Your task to perform on an android device: Play the last video I watched on Youtube Image 0: 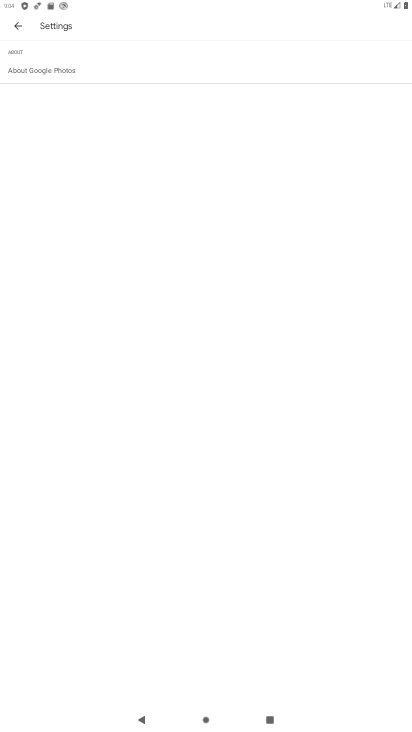
Step 0: press home button
Your task to perform on an android device: Play the last video I watched on Youtube Image 1: 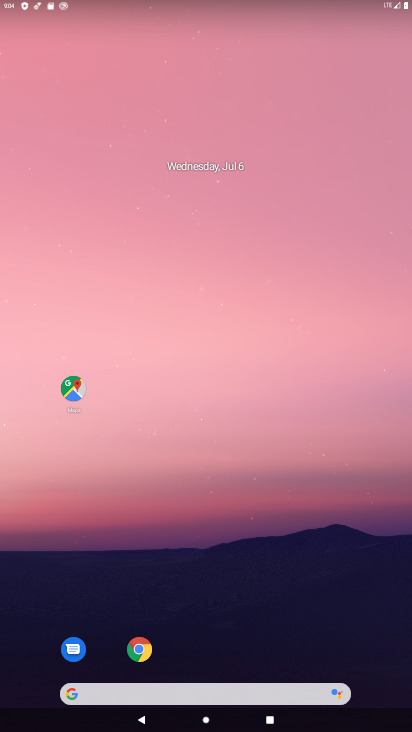
Step 1: drag from (202, 662) to (160, 224)
Your task to perform on an android device: Play the last video I watched on Youtube Image 2: 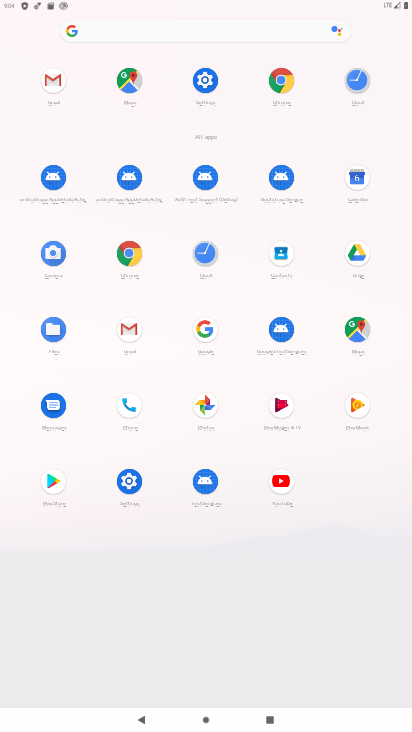
Step 2: click (275, 481)
Your task to perform on an android device: Play the last video I watched on Youtube Image 3: 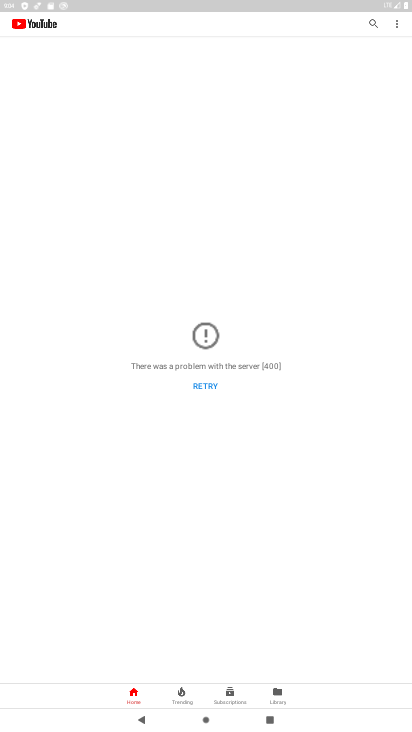
Step 3: click (197, 382)
Your task to perform on an android device: Play the last video I watched on Youtube Image 4: 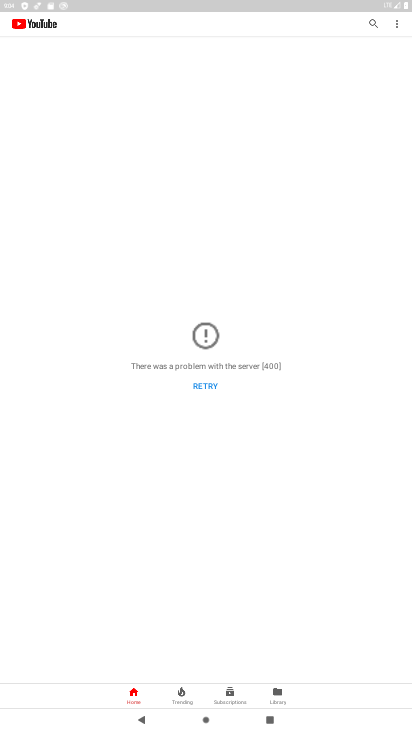
Step 4: click (197, 382)
Your task to perform on an android device: Play the last video I watched on Youtube Image 5: 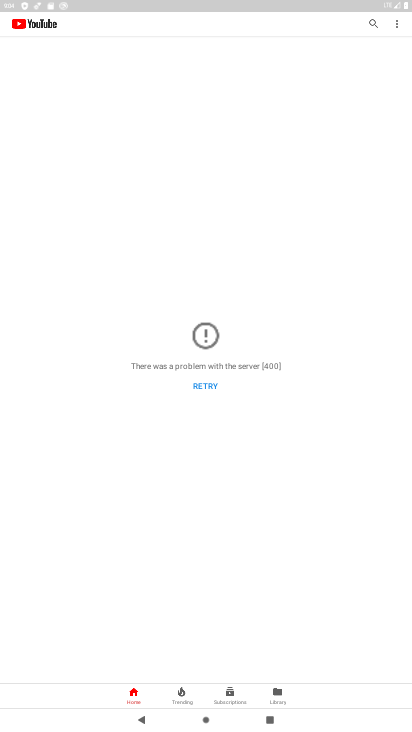
Step 5: task complete